Your task to perform on an android device: turn notification dots on Image 0: 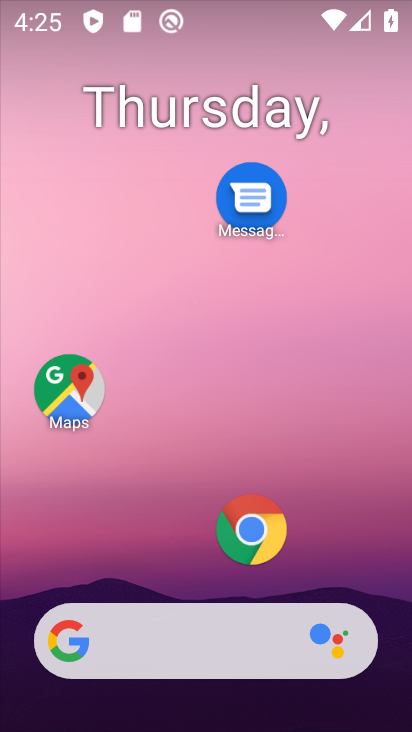
Step 0: drag from (146, 492) to (224, 70)
Your task to perform on an android device: turn notification dots on Image 1: 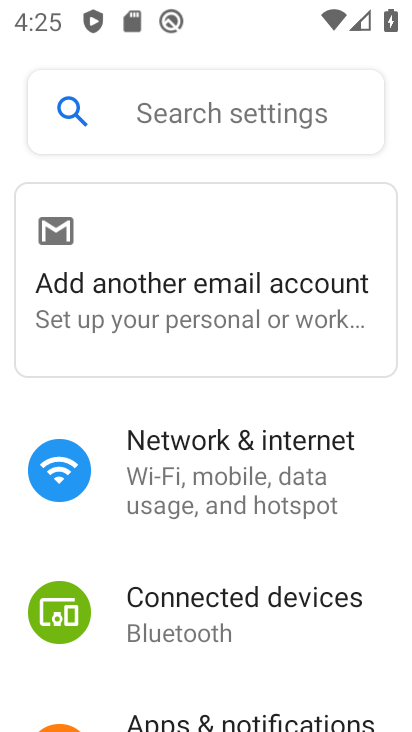
Step 1: press back button
Your task to perform on an android device: turn notification dots on Image 2: 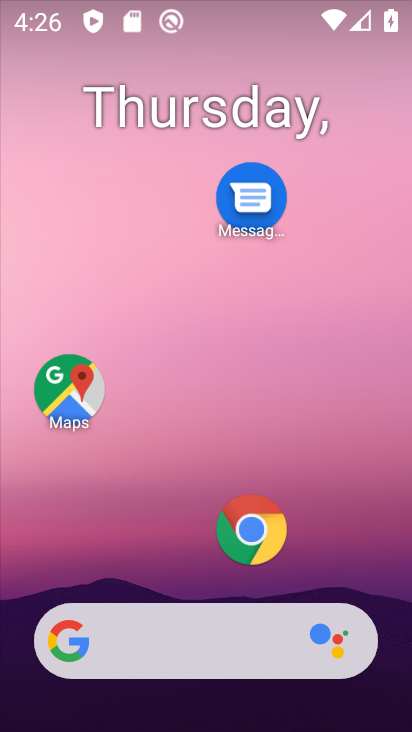
Step 2: drag from (124, 454) to (226, 57)
Your task to perform on an android device: turn notification dots on Image 3: 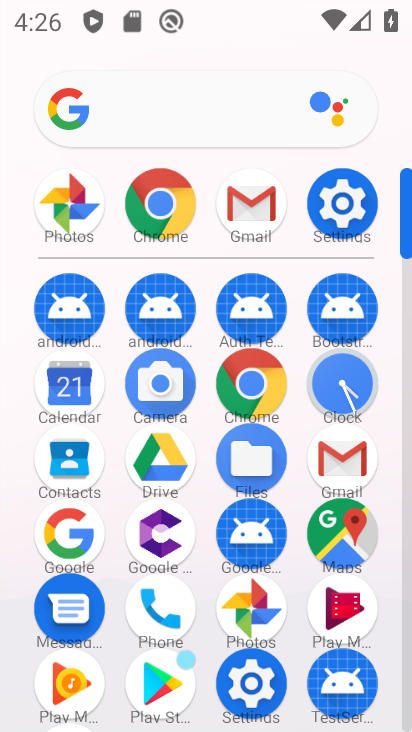
Step 3: click (348, 216)
Your task to perform on an android device: turn notification dots on Image 4: 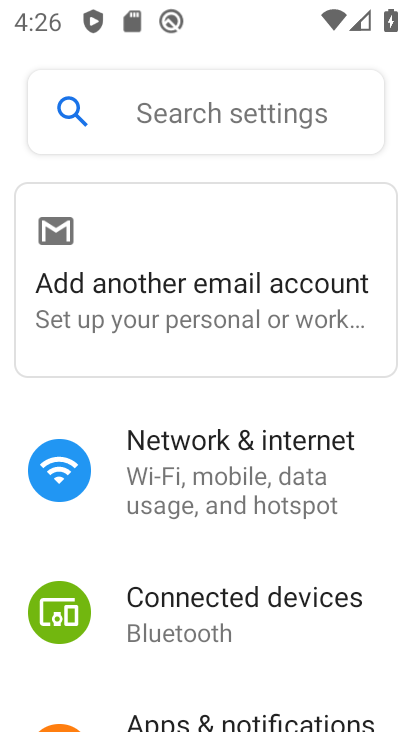
Step 4: click (191, 712)
Your task to perform on an android device: turn notification dots on Image 5: 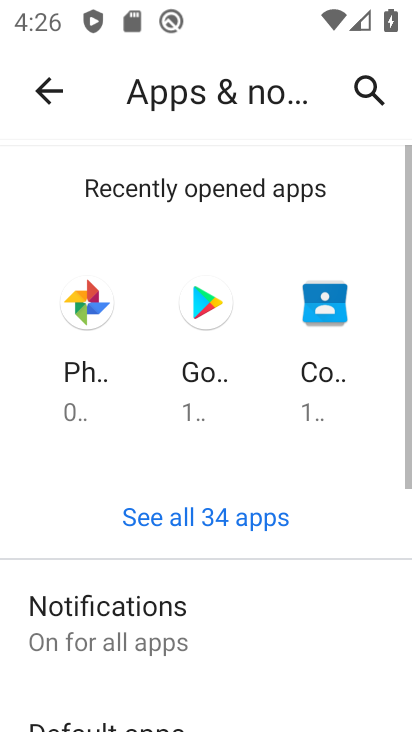
Step 5: drag from (189, 669) to (322, 108)
Your task to perform on an android device: turn notification dots on Image 6: 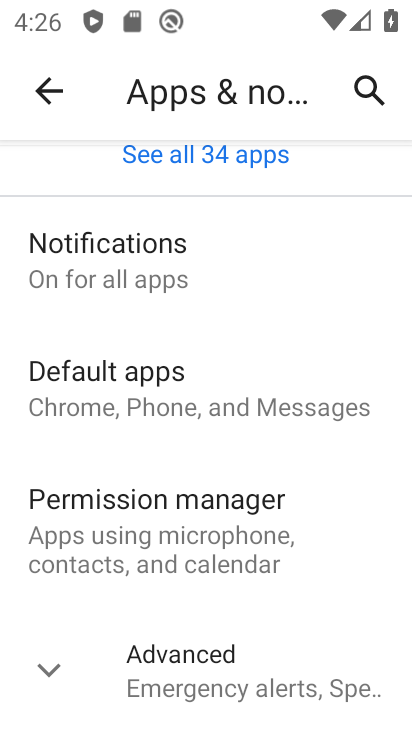
Step 6: click (153, 264)
Your task to perform on an android device: turn notification dots on Image 7: 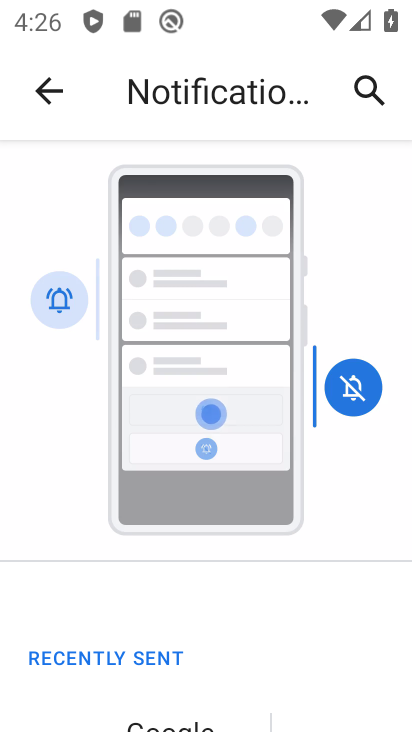
Step 7: drag from (162, 691) to (253, 123)
Your task to perform on an android device: turn notification dots on Image 8: 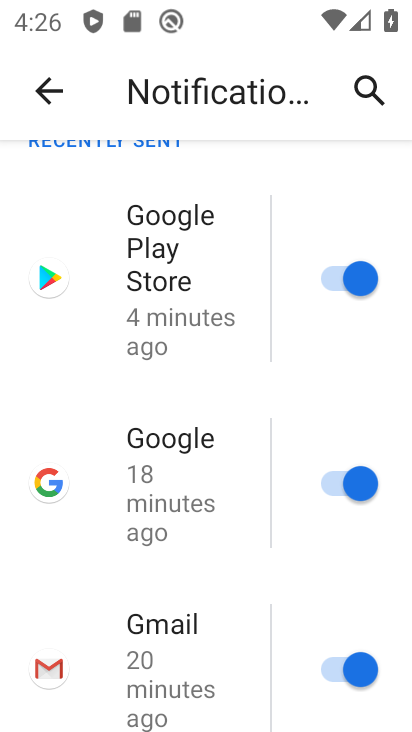
Step 8: drag from (184, 613) to (237, 67)
Your task to perform on an android device: turn notification dots on Image 9: 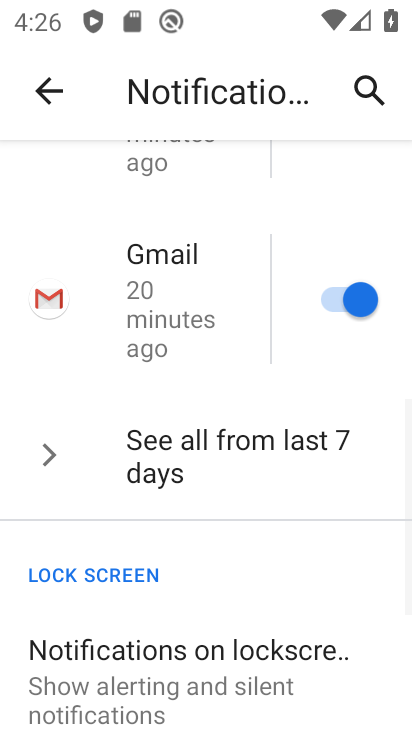
Step 9: drag from (148, 663) to (274, 107)
Your task to perform on an android device: turn notification dots on Image 10: 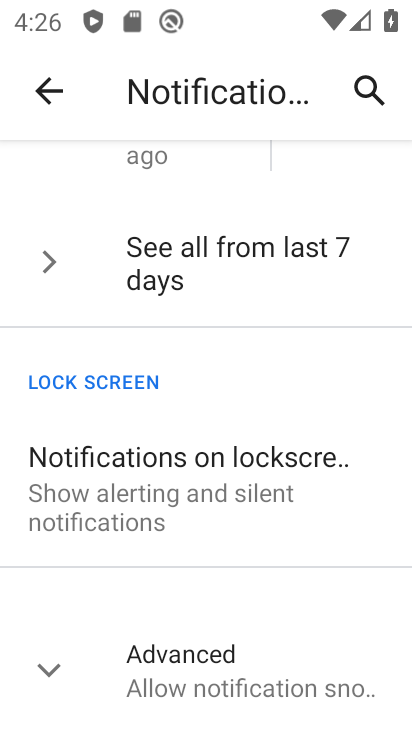
Step 10: drag from (192, 530) to (271, 107)
Your task to perform on an android device: turn notification dots on Image 11: 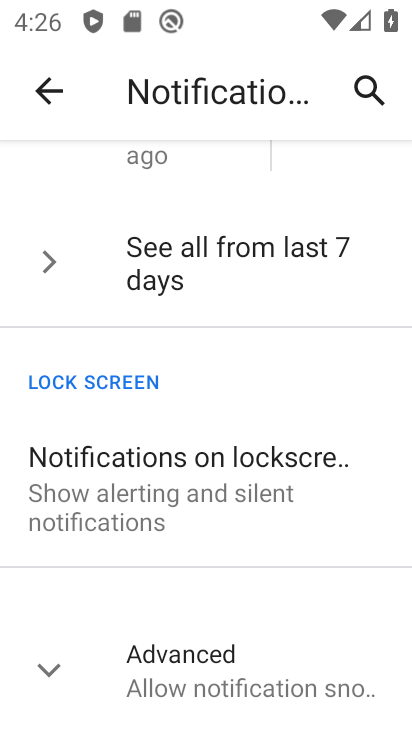
Step 11: click (183, 674)
Your task to perform on an android device: turn notification dots on Image 12: 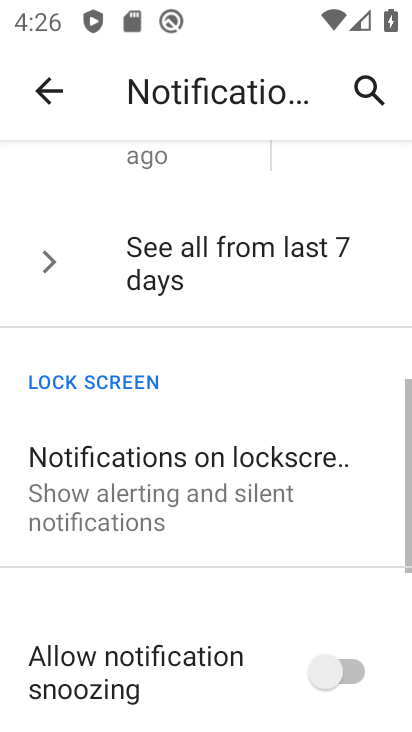
Step 12: task complete